Your task to perform on an android device: Open Chrome and go to the settings page Image 0: 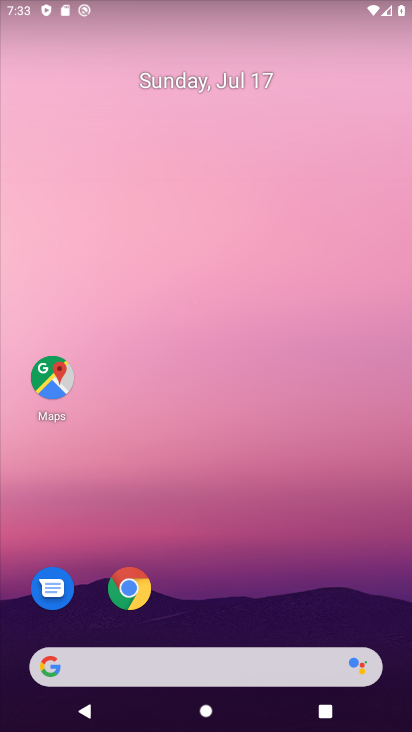
Step 0: click (365, 354)
Your task to perform on an android device: Open Chrome and go to the settings page Image 1: 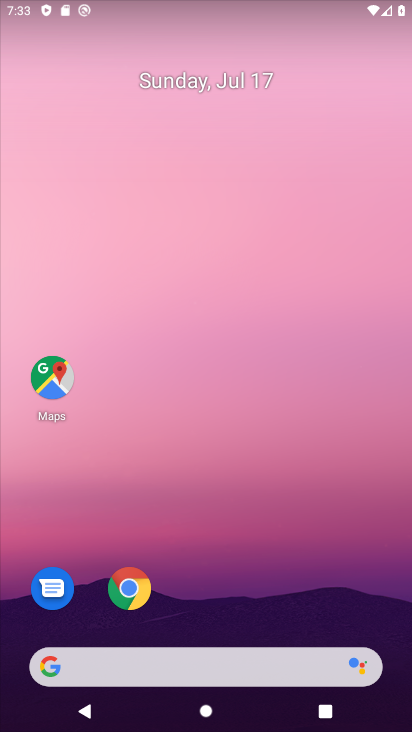
Step 1: click (365, 354)
Your task to perform on an android device: Open Chrome and go to the settings page Image 2: 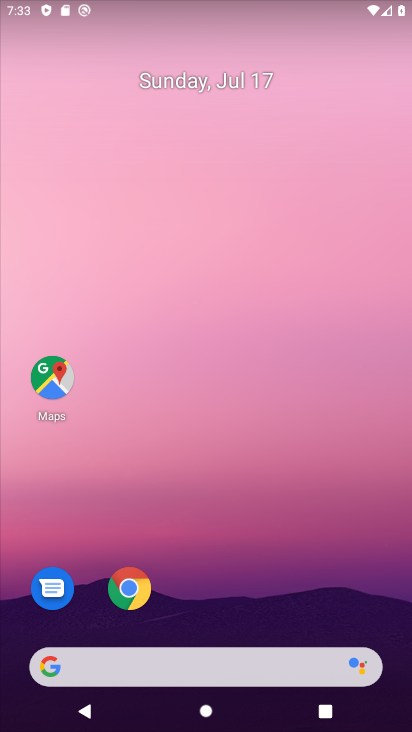
Step 2: click (365, 354)
Your task to perform on an android device: Open Chrome and go to the settings page Image 3: 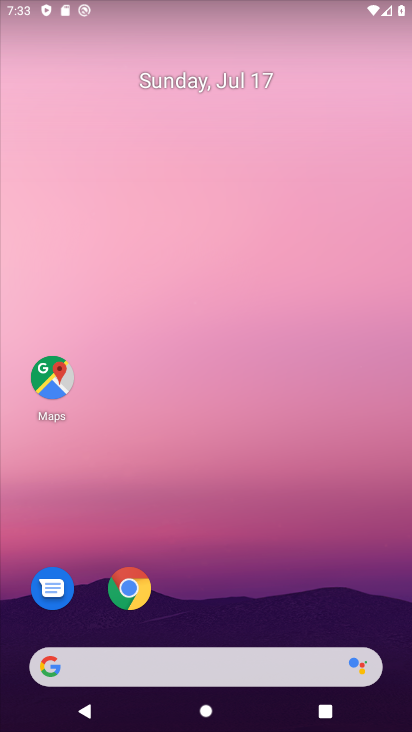
Step 3: click (133, 599)
Your task to perform on an android device: Open Chrome and go to the settings page Image 4: 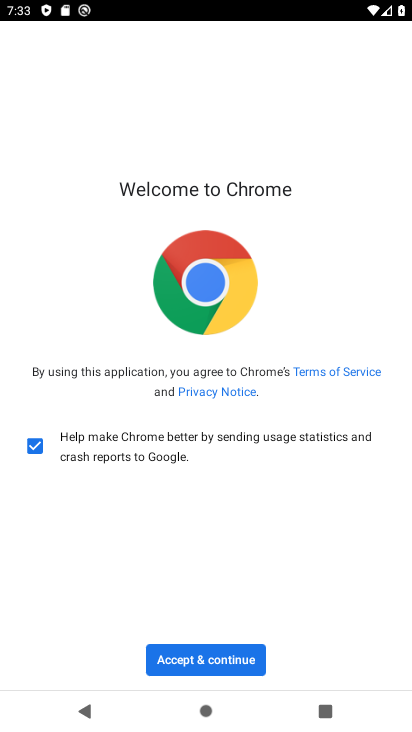
Step 4: click (155, 646)
Your task to perform on an android device: Open Chrome and go to the settings page Image 5: 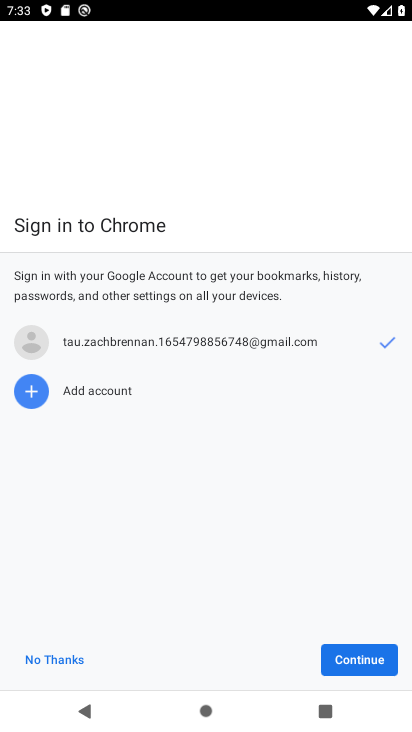
Step 5: click (372, 656)
Your task to perform on an android device: Open Chrome and go to the settings page Image 6: 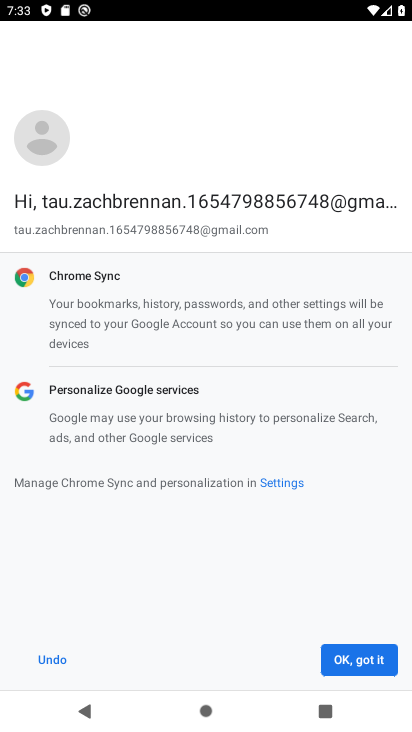
Step 6: click (372, 656)
Your task to perform on an android device: Open Chrome and go to the settings page Image 7: 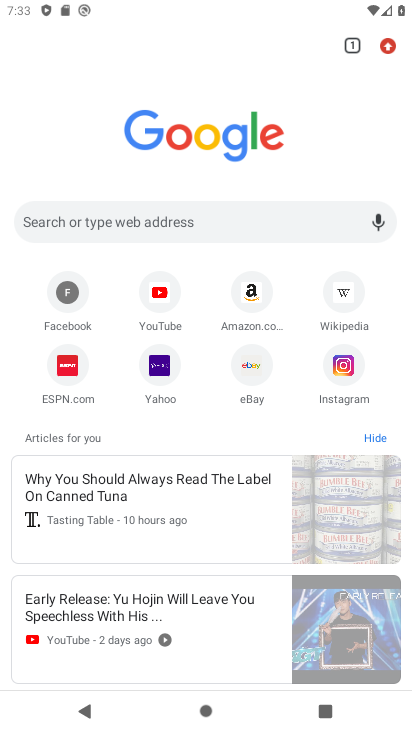
Step 7: click (388, 49)
Your task to perform on an android device: Open Chrome and go to the settings page Image 8: 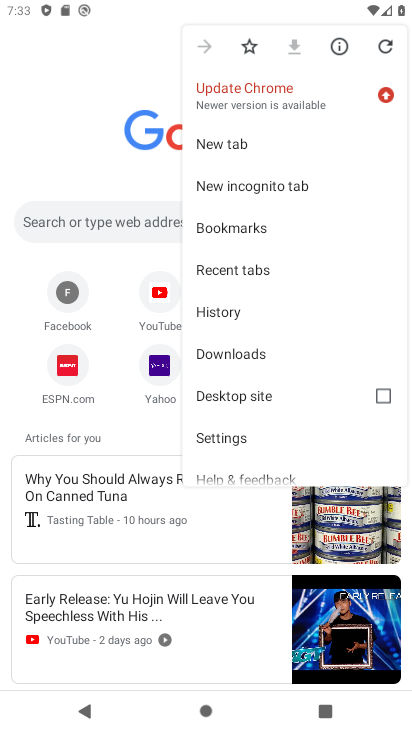
Step 8: click (222, 429)
Your task to perform on an android device: Open Chrome and go to the settings page Image 9: 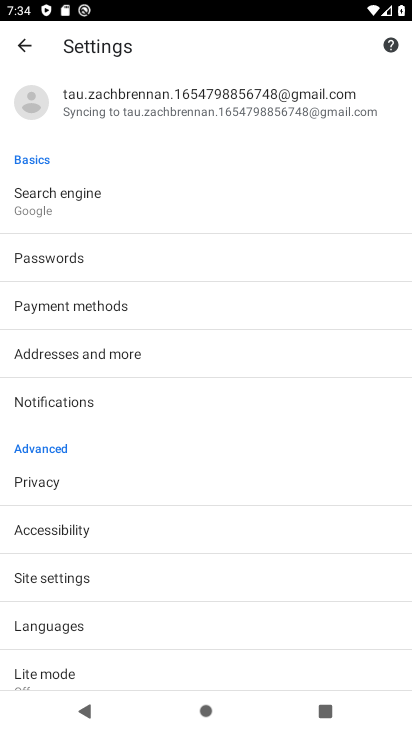
Step 9: task complete